Your task to perform on an android device: change text size in settings app Image 0: 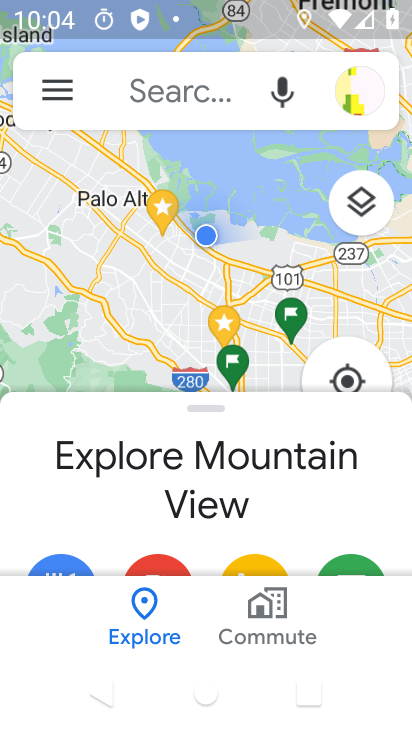
Step 0: press home button
Your task to perform on an android device: change text size in settings app Image 1: 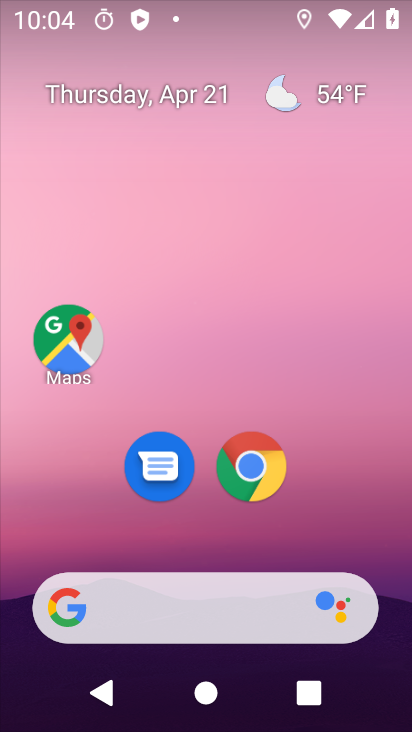
Step 1: drag from (356, 505) to (360, 141)
Your task to perform on an android device: change text size in settings app Image 2: 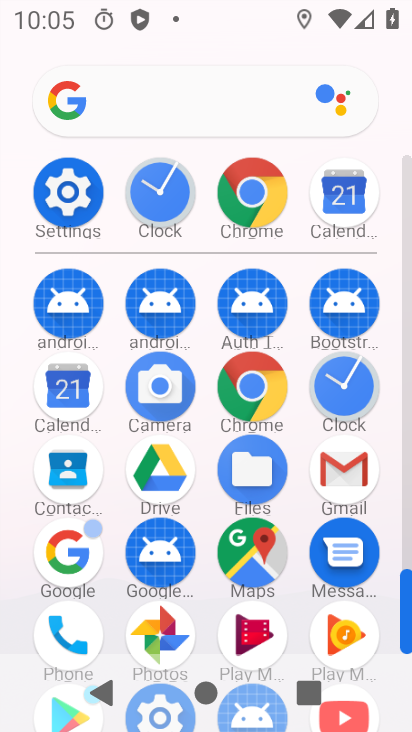
Step 2: click (87, 204)
Your task to perform on an android device: change text size in settings app Image 3: 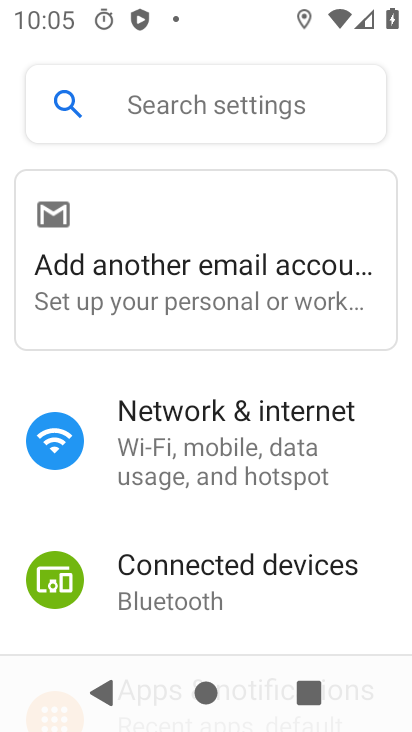
Step 3: drag from (97, 516) to (130, 324)
Your task to perform on an android device: change text size in settings app Image 4: 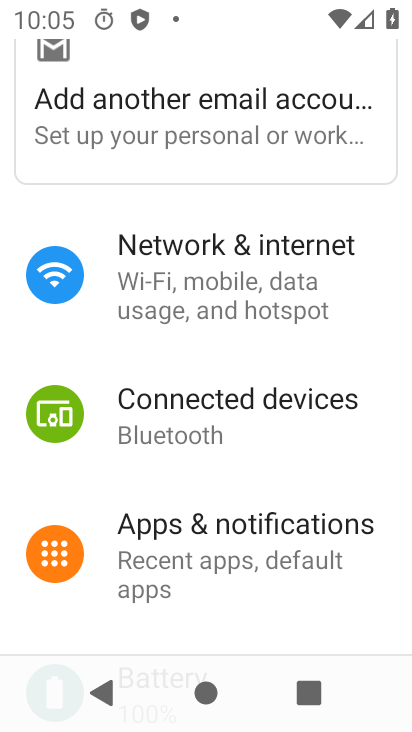
Step 4: drag from (363, 609) to (359, 397)
Your task to perform on an android device: change text size in settings app Image 5: 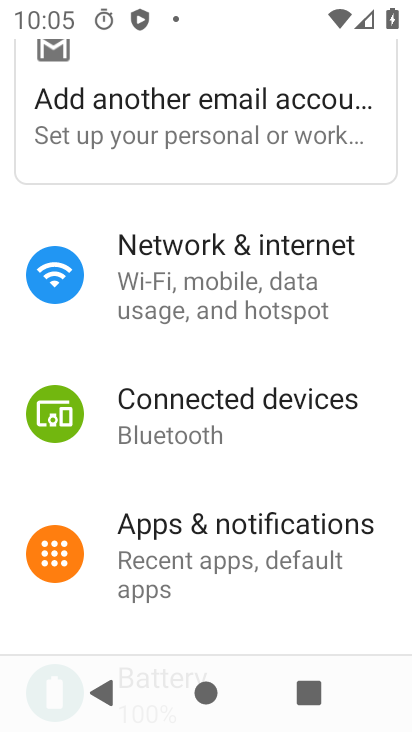
Step 5: drag from (383, 552) to (383, 352)
Your task to perform on an android device: change text size in settings app Image 6: 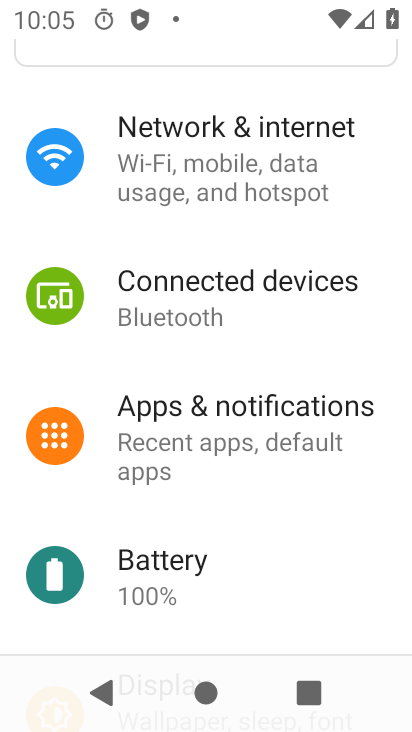
Step 6: drag from (347, 537) to (340, 342)
Your task to perform on an android device: change text size in settings app Image 7: 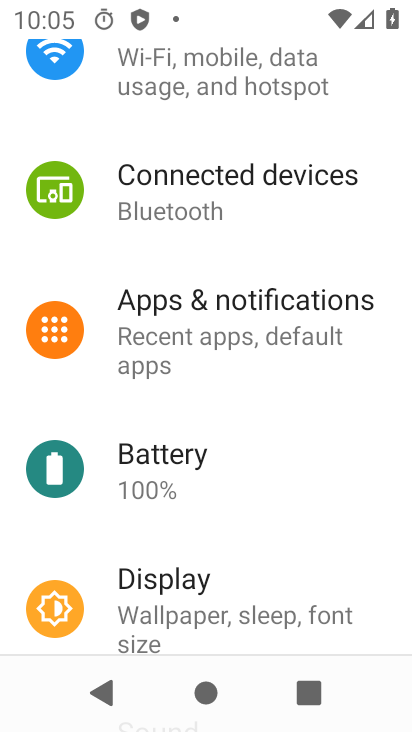
Step 7: drag from (322, 542) to (334, 307)
Your task to perform on an android device: change text size in settings app Image 8: 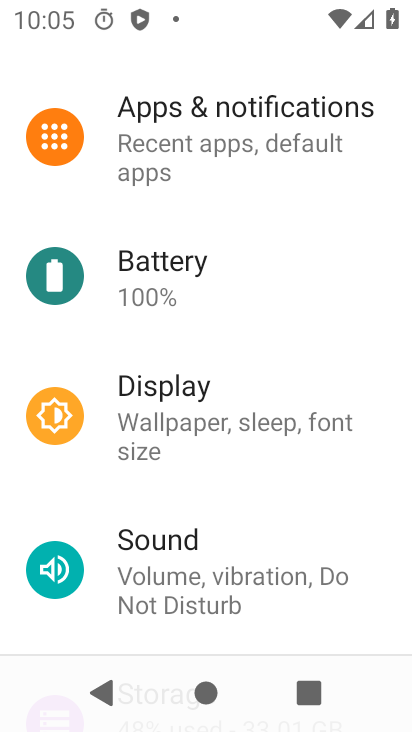
Step 8: click (140, 409)
Your task to perform on an android device: change text size in settings app Image 9: 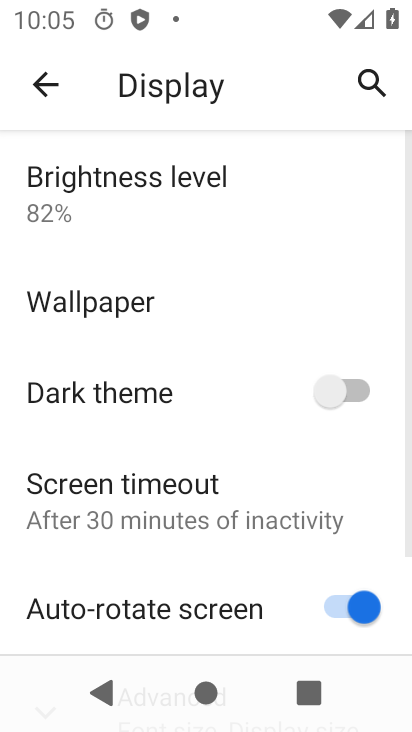
Step 9: drag from (111, 522) to (172, 238)
Your task to perform on an android device: change text size in settings app Image 10: 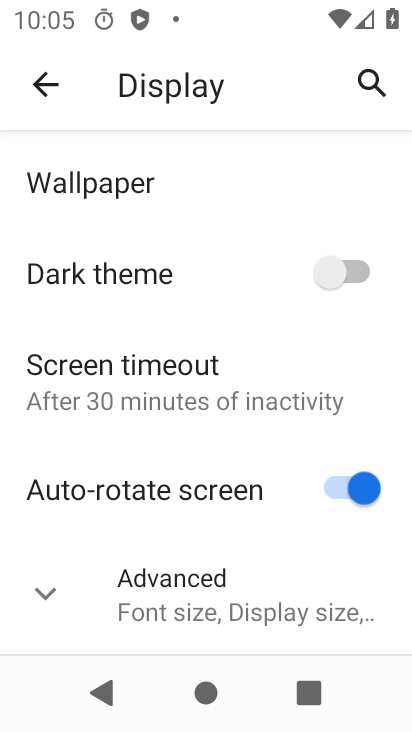
Step 10: click (20, 598)
Your task to perform on an android device: change text size in settings app Image 11: 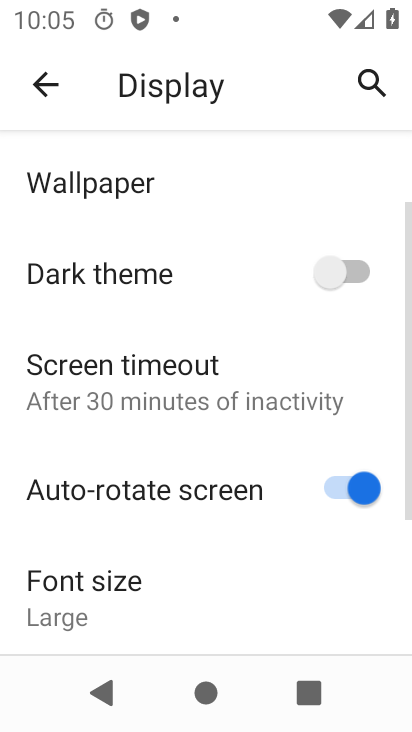
Step 11: click (91, 600)
Your task to perform on an android device: change text size in settings app Image 12: 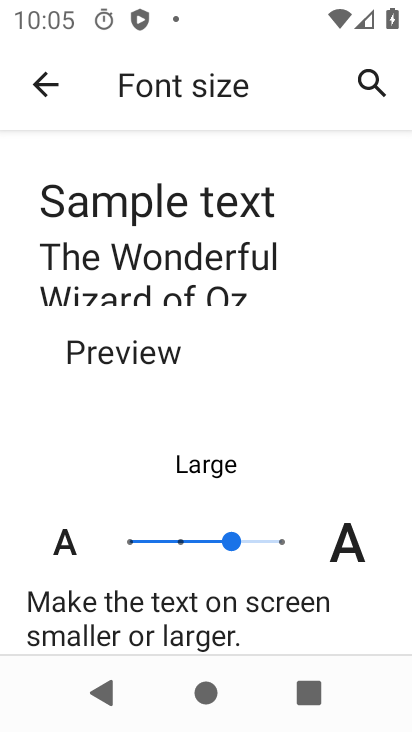
Step 12: click (132, 540)
Your task to perform on an android device: change text size in settings app Image 13: 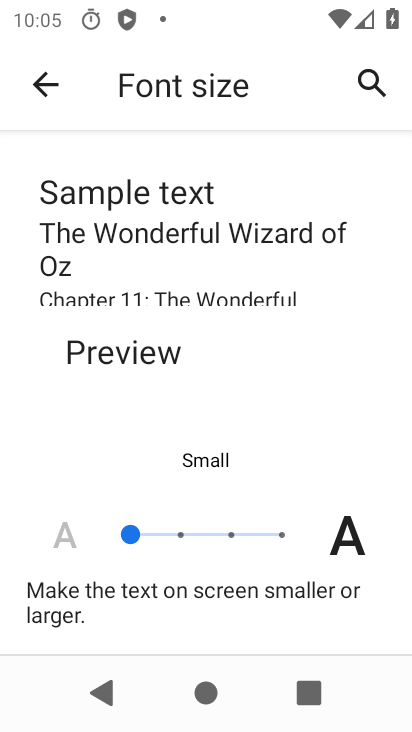
Step 13: task complete